Your task to perform on an android device: open device folders in google photos Image 0: 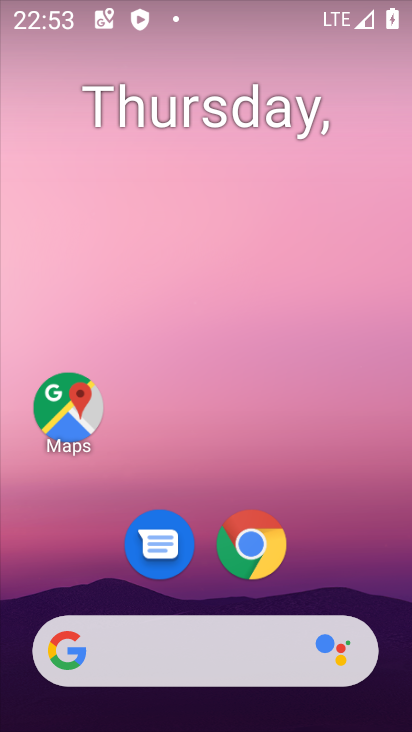
Step 0: drag from (305, 541) to (127, 161)
Your task to perform on an android device: open device folders in google photos Image 1: 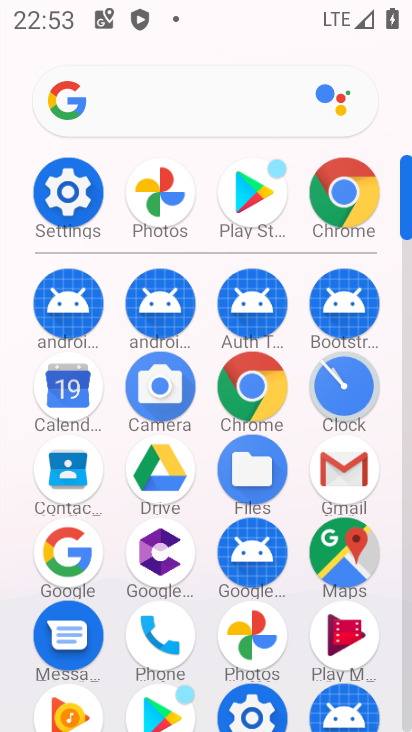
Step 1: click (264, 636)
Your task to perform on an android device: open device folders in google photos Image 2: 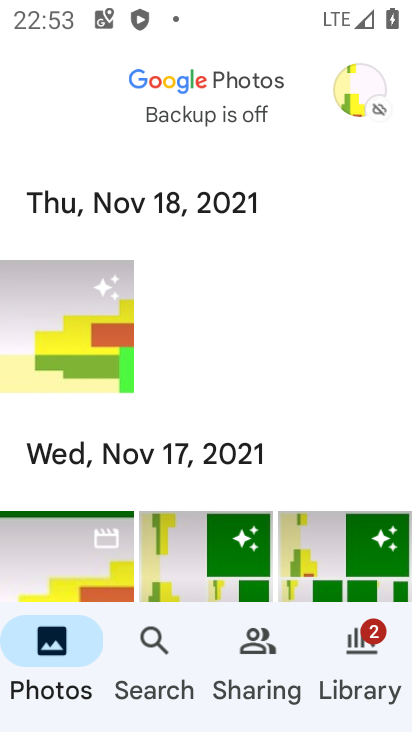
Step 2: click (348, 93)
Your task to perform on an android device: open device folders in google photos Image 3: 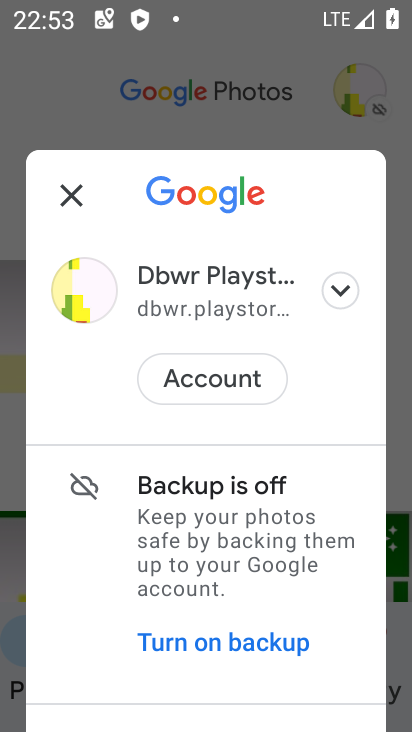
Step 3: drag from (298, 684) to (264, 257)
Your task to perform on an android device: open device folders in google photos Image 4: 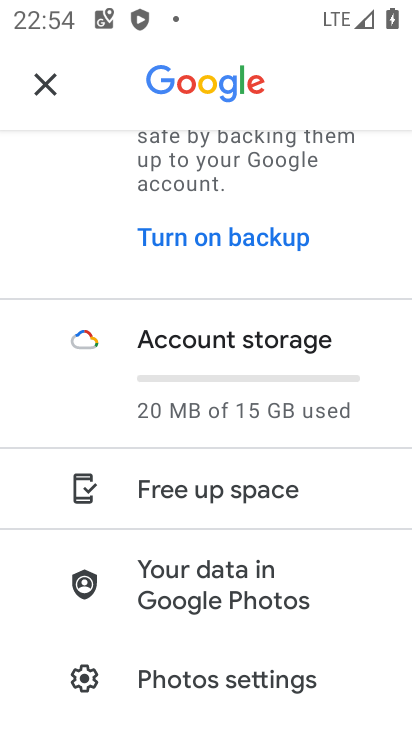
Step 4: drag from (243, 584) to (226, 230)
Your task to perform on an android device: open device folders in google photos Image 5: 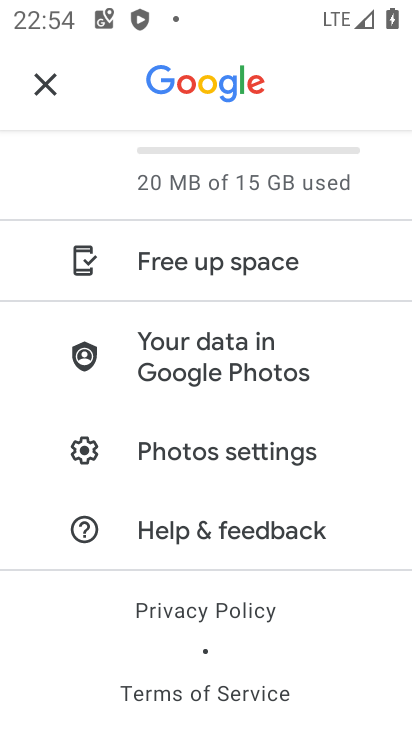
Step 5: press back button
Your task to perform on an android device: open device folders in google photos Image 6: 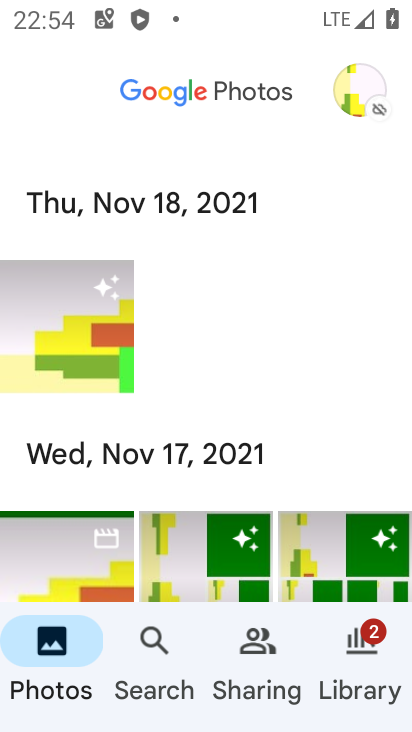
Step 6: click (365, 651)
Your task to perform on an android device: open device folders in google photos Image 7: 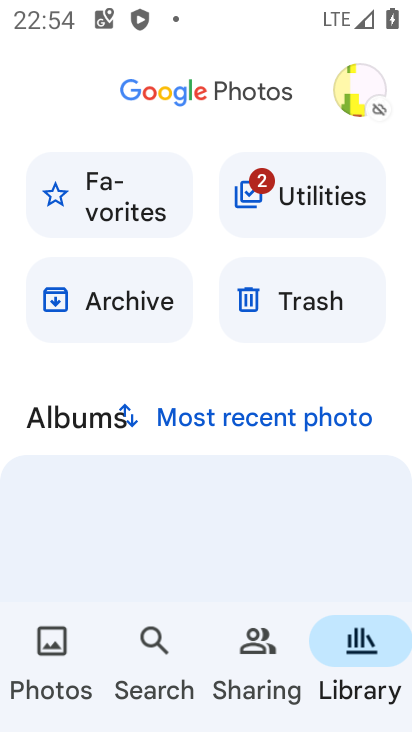
Step 7: drag from (131, 508) to (126, 129)
Your task to perform on an android device: open device folders in google photos Image 8: 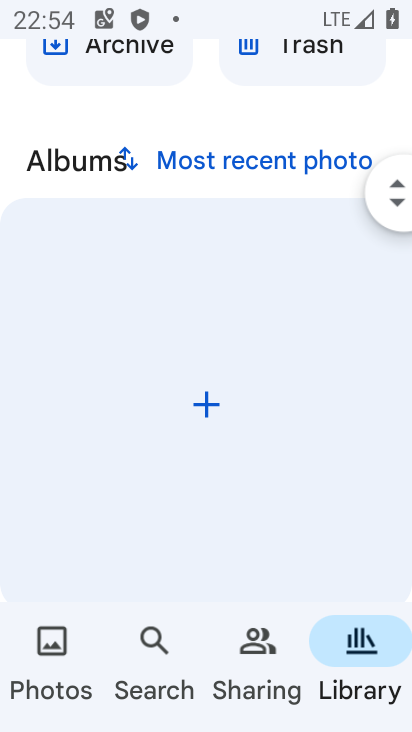
Step 8: click (178, 644)
Your task to perform on an android device: open device folders in google photos Image 9: 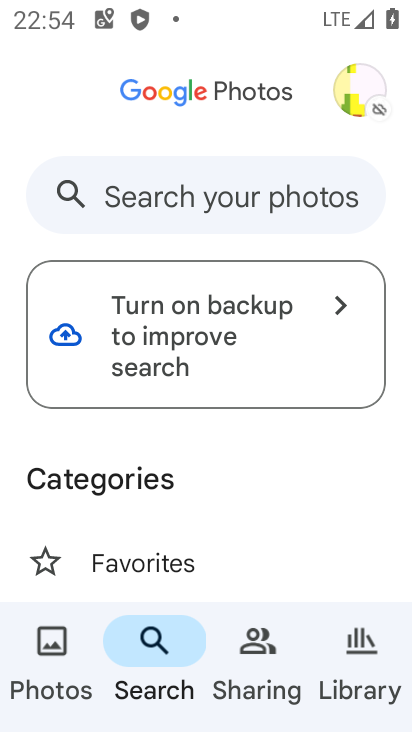
Step 9: drag from (178, 540) to (185, 184)
Your task to perform on an android device: open device folders in google photos Image 10: 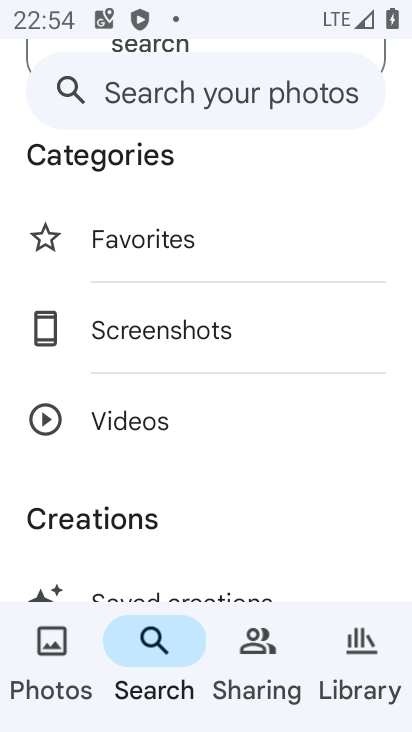
Step 10: drag from (156, 407) to (165, 232)
Your task to perform on an android device: open device folders in google photos Image 11: 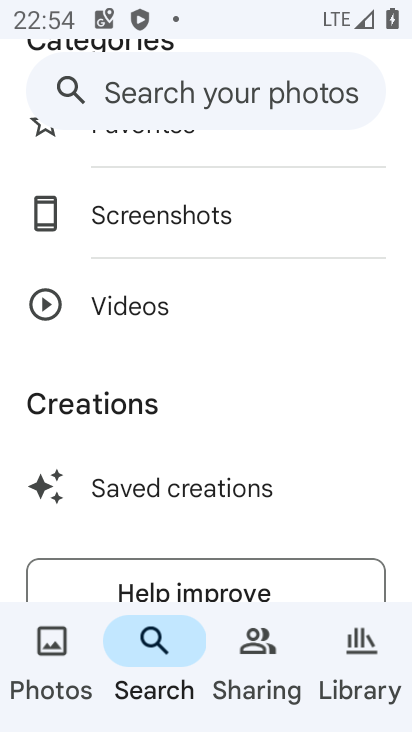
Step 11: click (172, 204)
Your task to perform on an android device: open device folders in google photos Image 12: 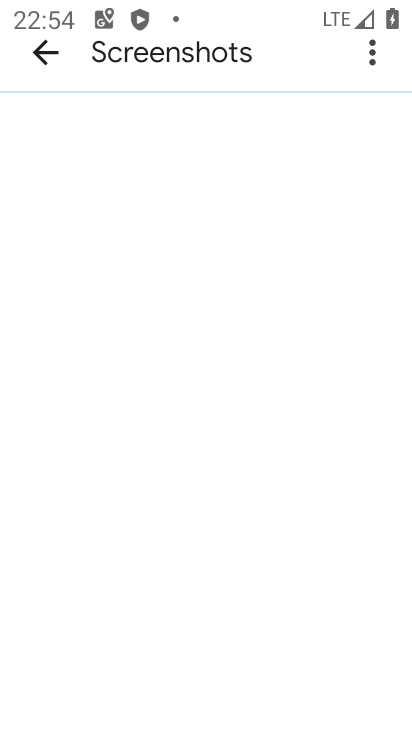
Step 12: task complete